Your task to perform on an android device: Open Wikipedia Image 0: 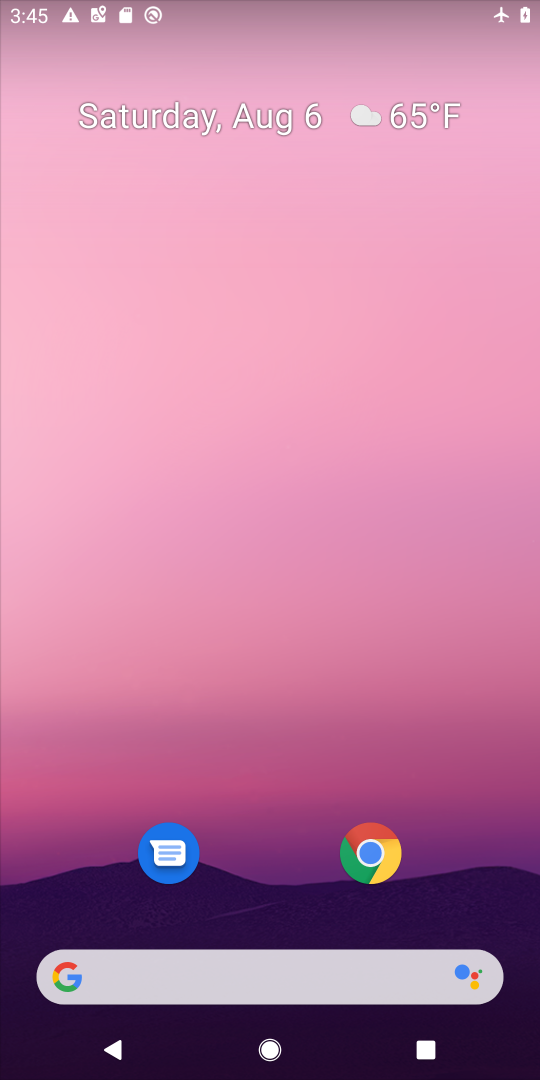
Step 0: click (354, 840)
Your task to perform on an android device: Open Wikipedia Image 1: 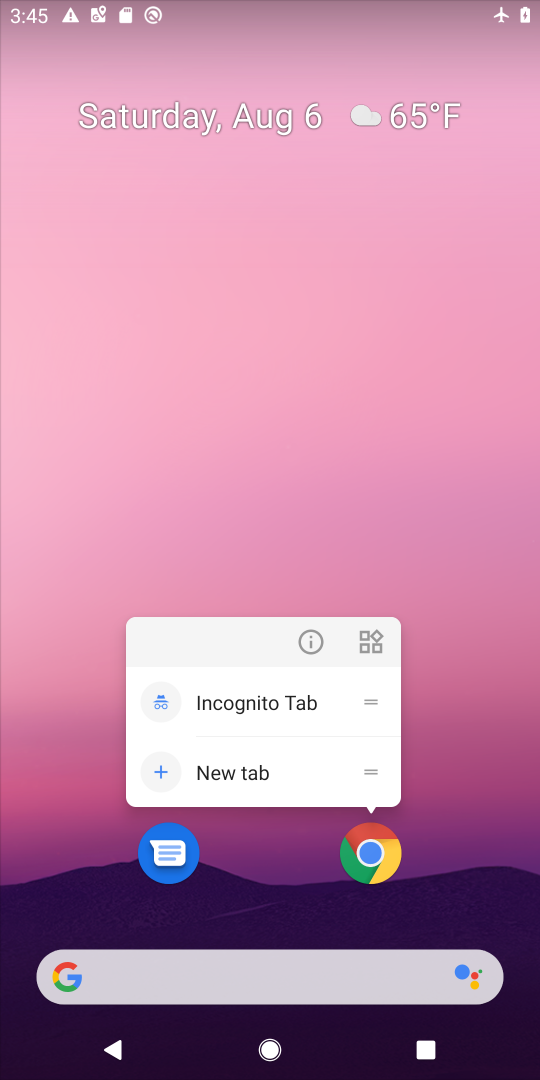
Step 1: click (372, 848)
Your task to perform on an android device: Open Wikipedia Image 2: 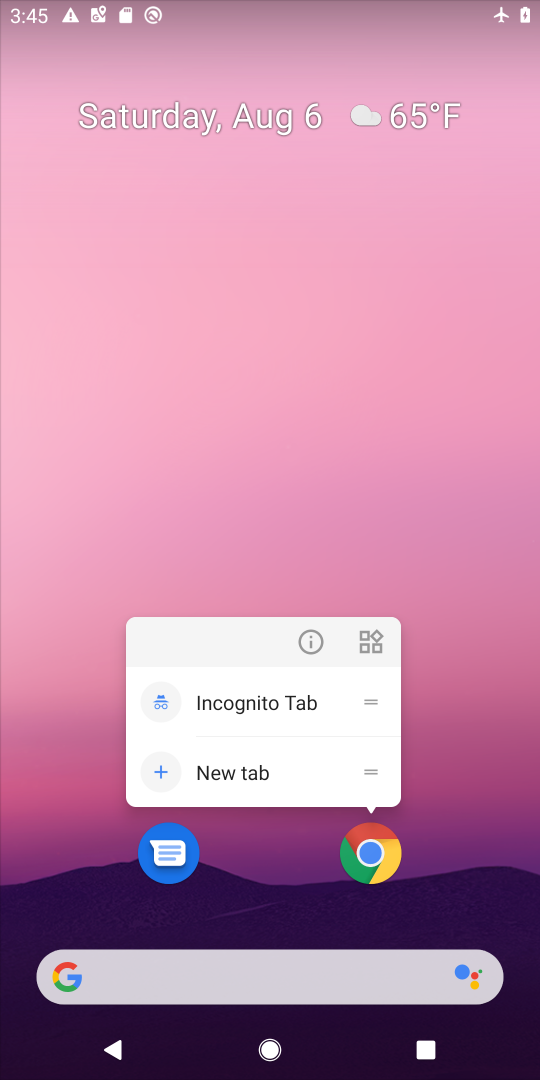
Step 2: click (374, 846)
Your task to perform on an android device: Open Wikipedia Image 3: 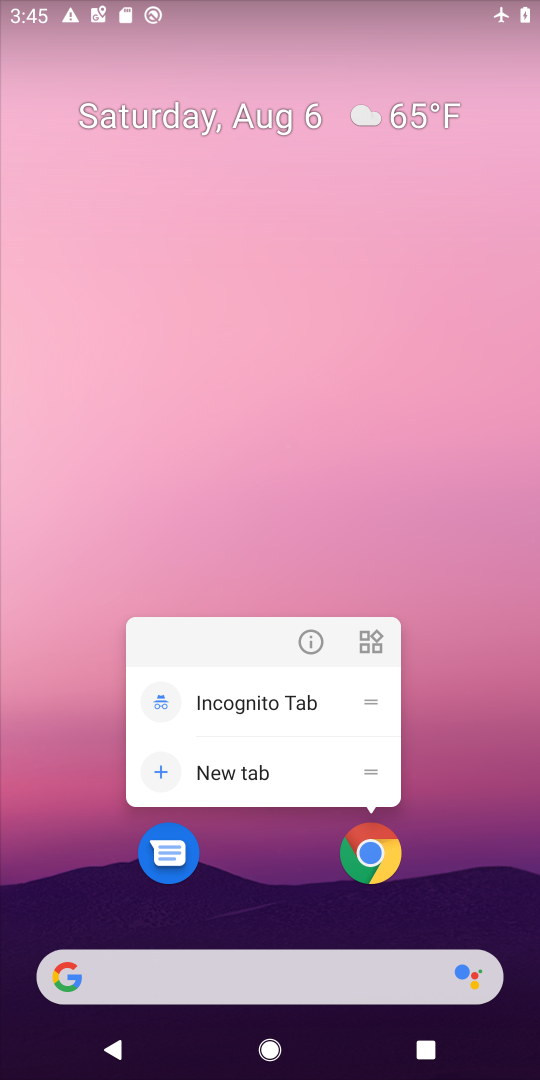
Step 3: click (360, 851)
Your task to perform on an android device: Open Wikipedia Image 4: 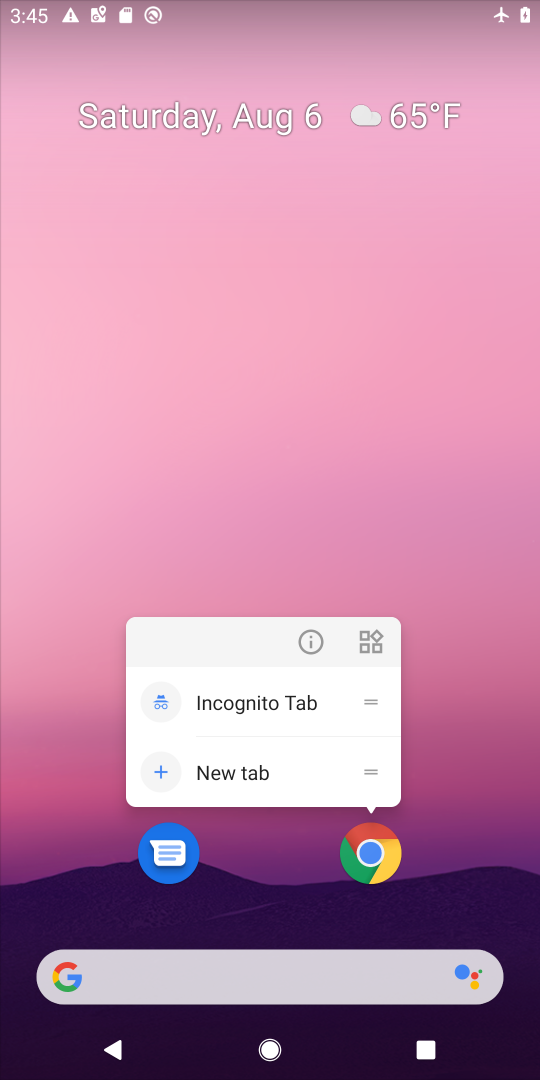
Step 4: click (365, 853)
Your task to perform on an android device: Open Wikipedia Image 5: 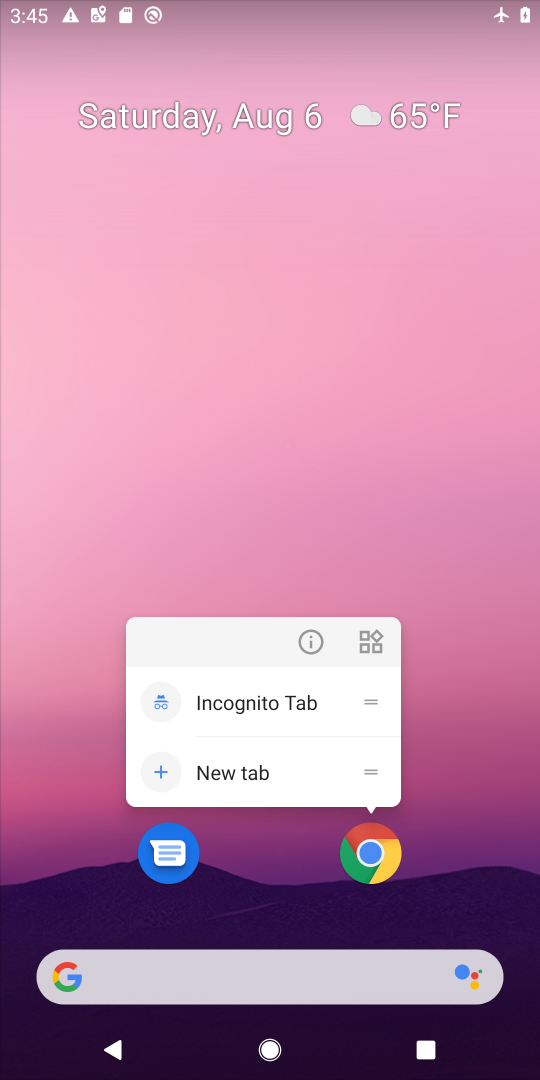
Step 5: click (373, 853)
Your task to perform on an android device: Open Wikipedia Image 6: 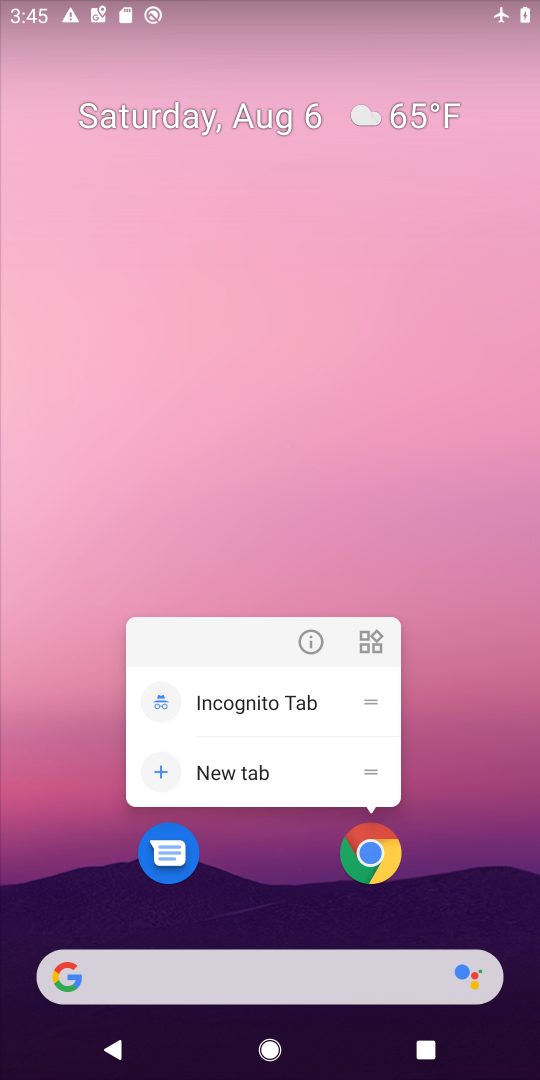
Step 6: click (368, 865)
Your task to perform on an android device: Open Wikipedia Image 7: 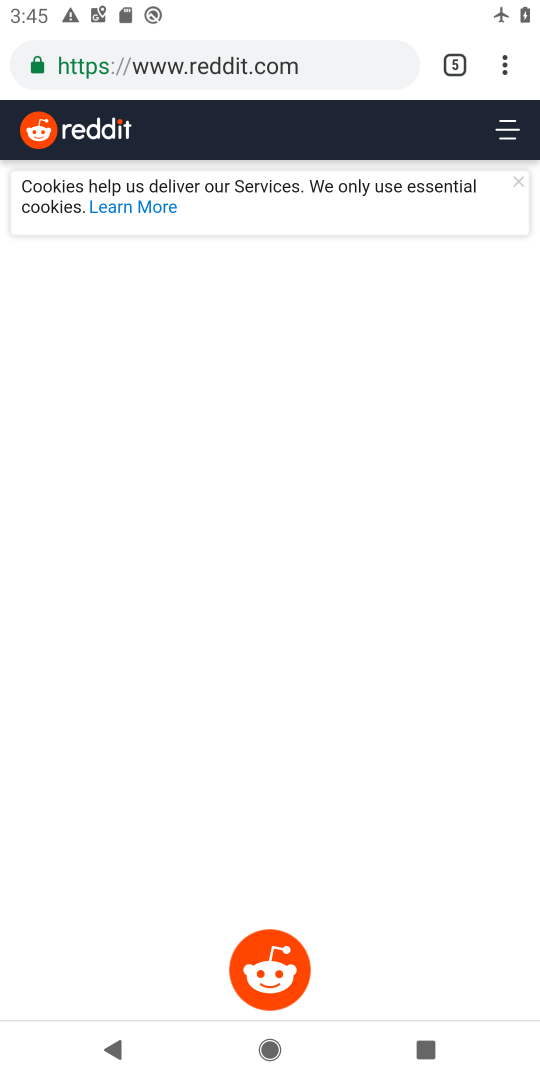
Step 7: click (442, 62)
Your task to perform on an android device: Open Wikipedia Image 8: 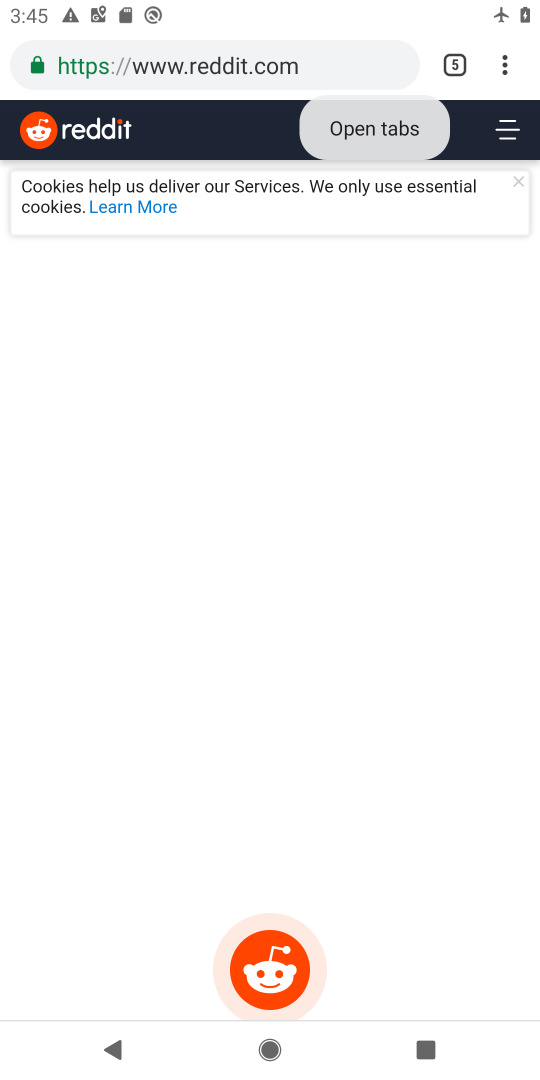
Step 8: click (467, 72)
Your task to perform on an android device: Open Wikipedia Image 9: 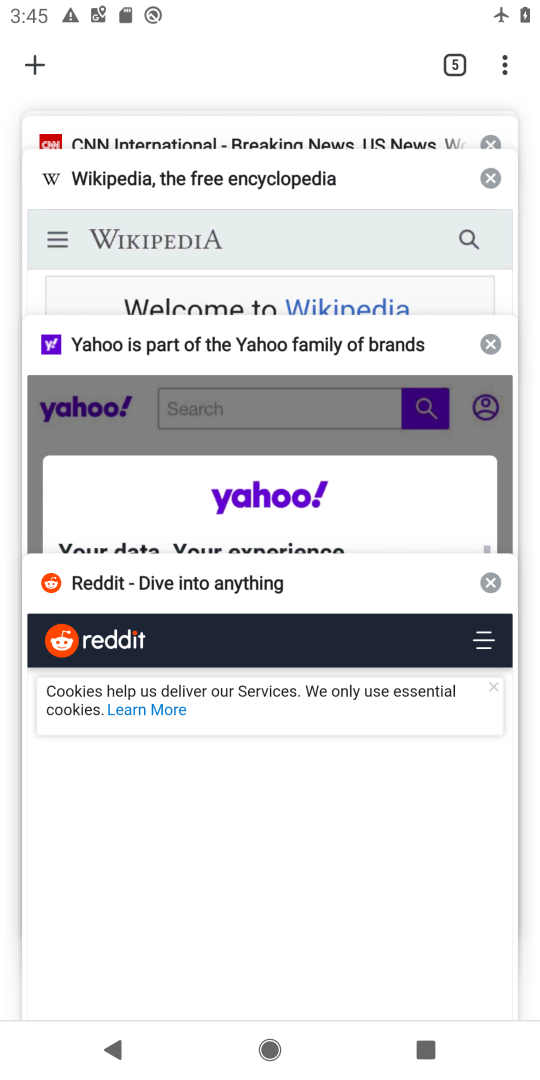
Step 9: click (120, 188)
Your task to perform on an android device: Open Wikipedia Image 10: 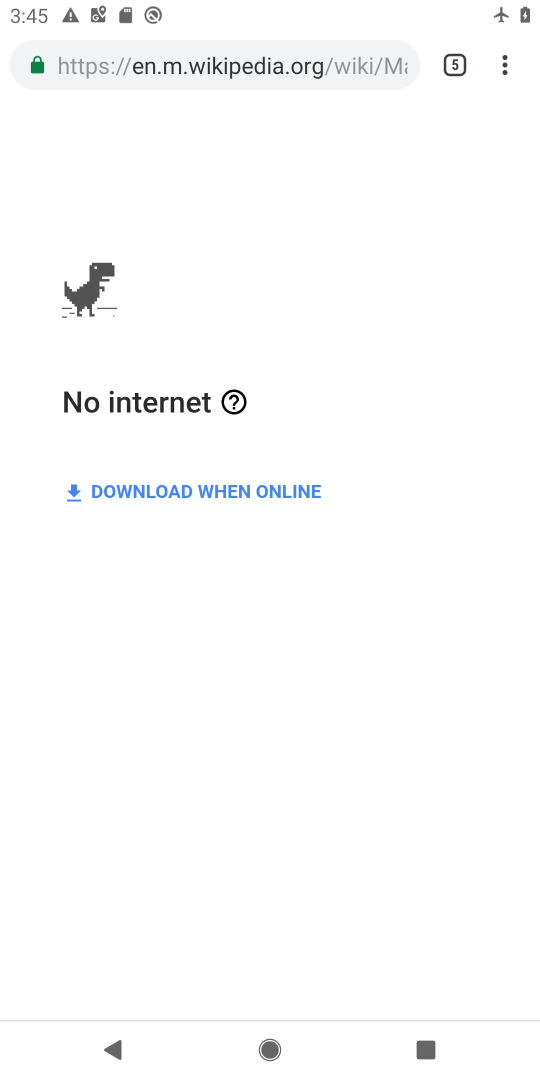
Step 10: drag from (500, 12) to (386, 916)
Your task to perform on an android device: Open Wikipedia Image 11: 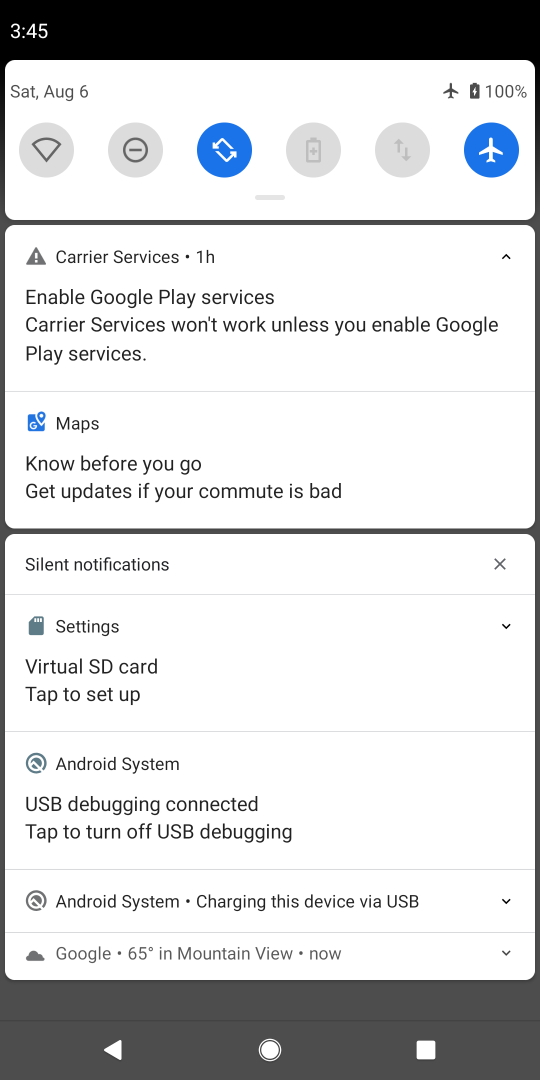
Step 11: click (483, 142)
Your task to perform on an android device: Open Wikipedia Image 12: 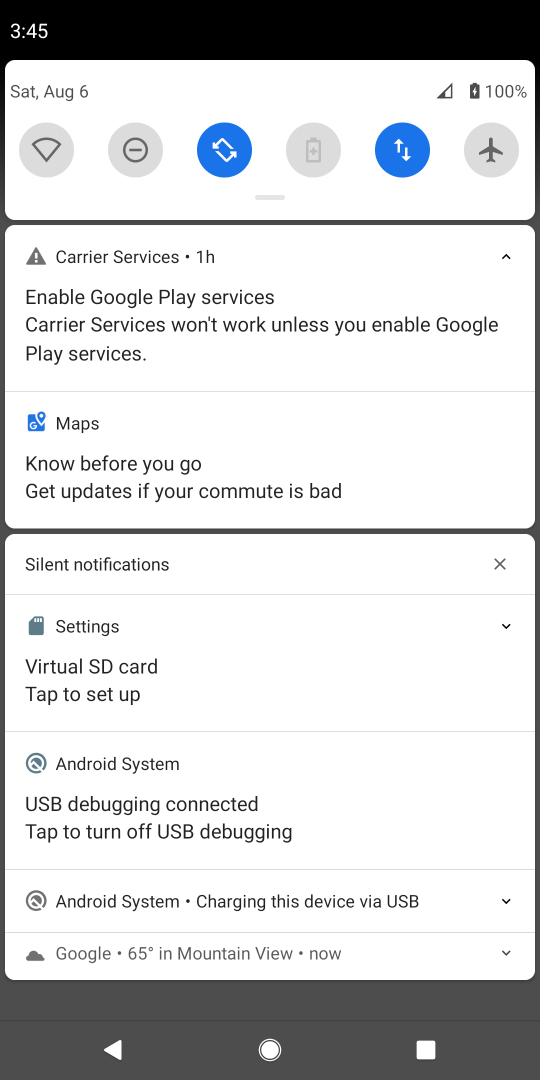
Step 12: click (188, 996)
Your task to perform on an android device: Open Wikipedia Image 13: 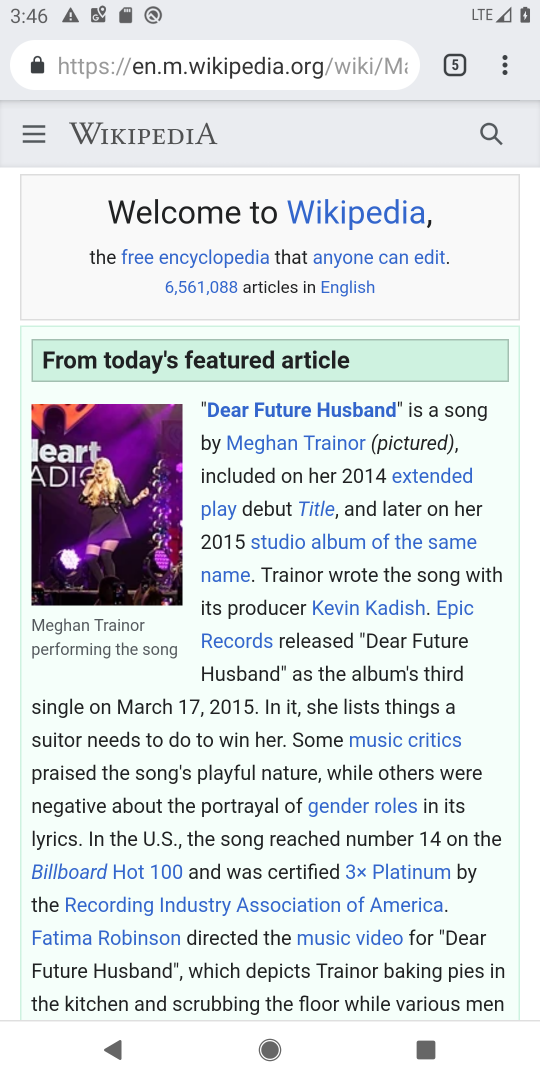
Step 13: task complete